Your task to perform on an android device: check google app version Image 0: 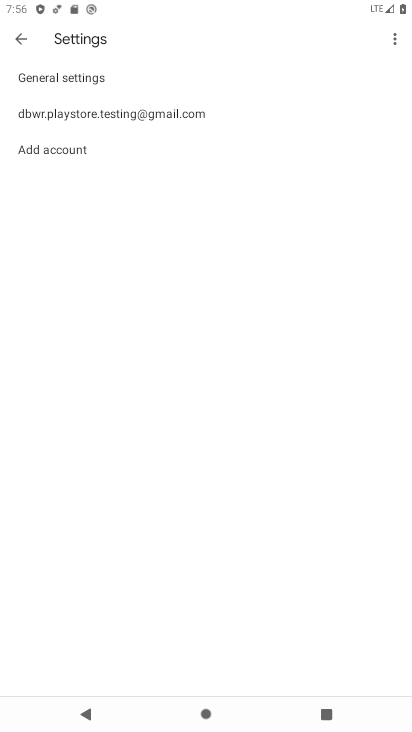
Step 0: press back button
Your task to perform on an android device: check google app version Image 1: 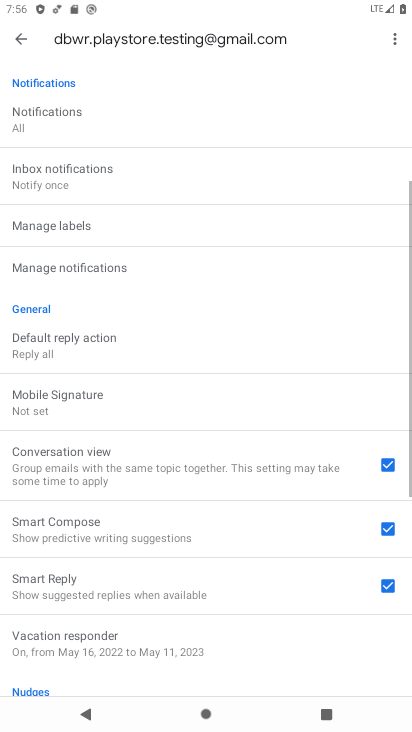
Step 1: press back button
Your task to perform on an android device: check google app version Image 2: 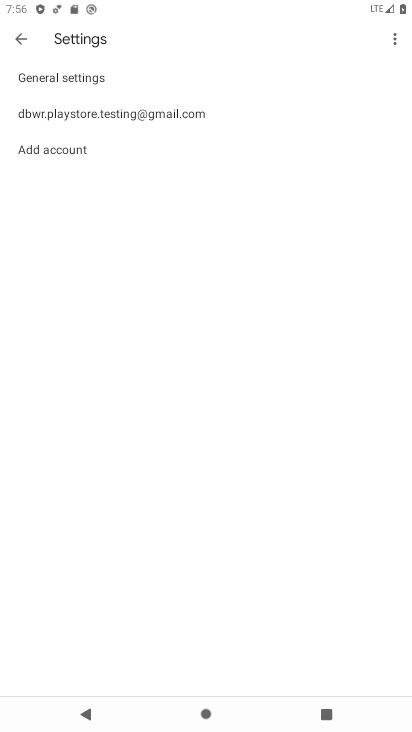
Step 2: press back button
Your task to perform on an android device: check google app version Image 3: 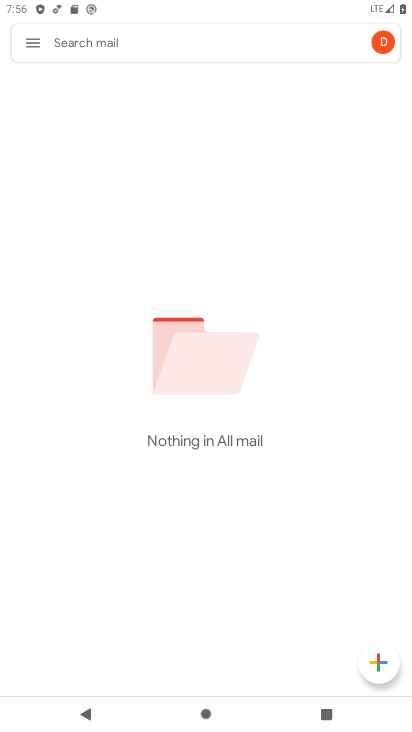
Step 3: press back button
Your task to perform on an android device: check google app version Image 4: 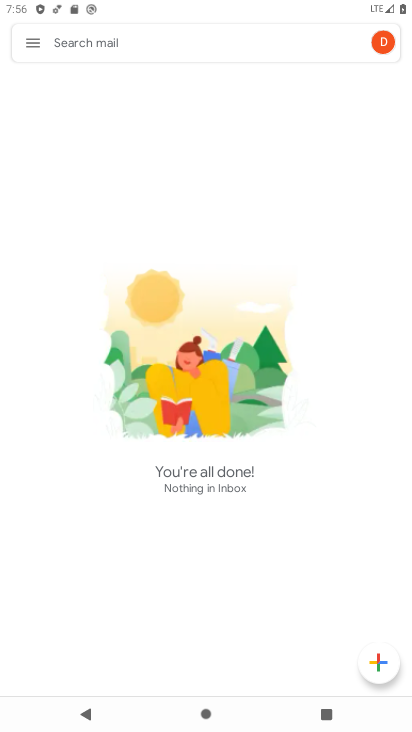
Step 4: press back button
Your task to perform on an android device: check google app version Image 5: 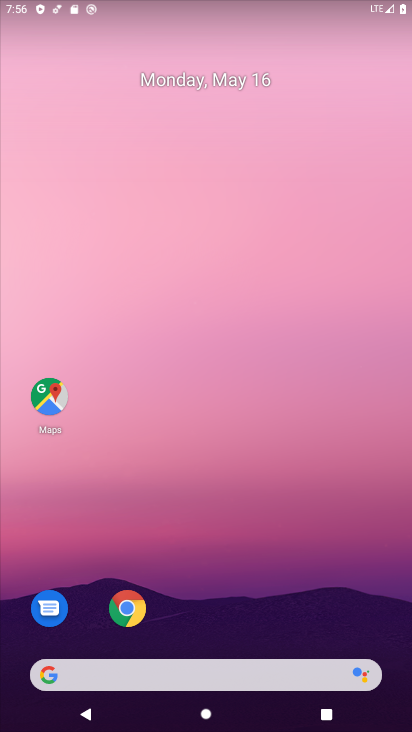
Step 5: drag from (248, 583) to (175, 114)
Your task to perform on an android device: check google app version Image 6: 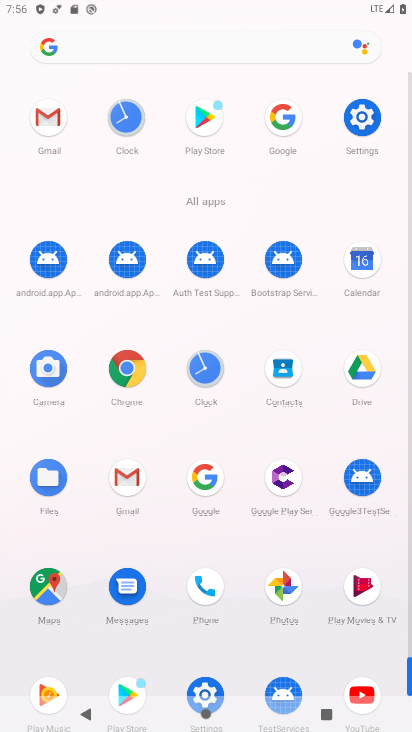
Step 6: click (203, 477)
Your task to perform on an android device: check google app version Image 7: 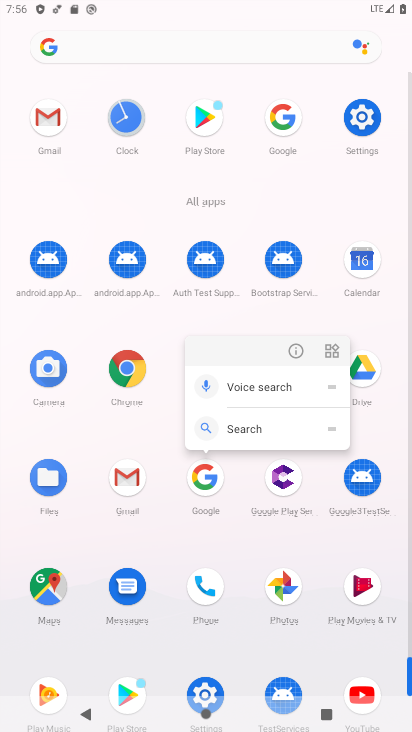
Step 7: click (299, 349)
Your task to perform on an android device: check google app version Image 8: 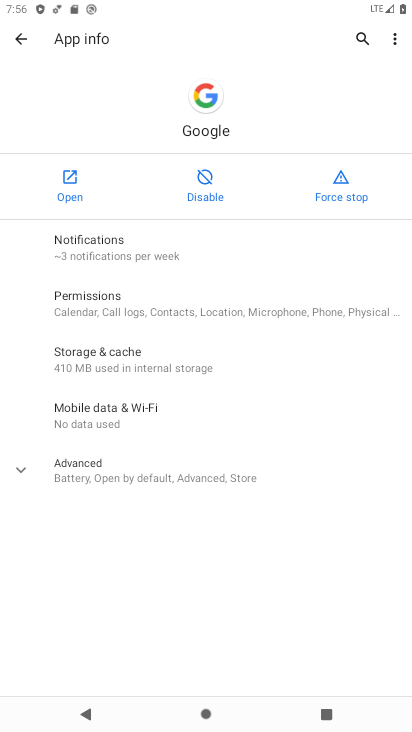
Step 8: click (76, 465)
Your task to perform on an android device: check google app version Image 9: 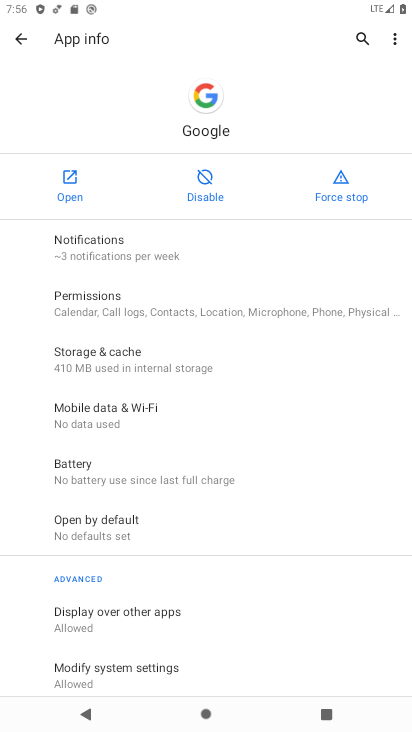
Step 9: task complete